Your task to perform on an android device: Go to Maps Image 0: 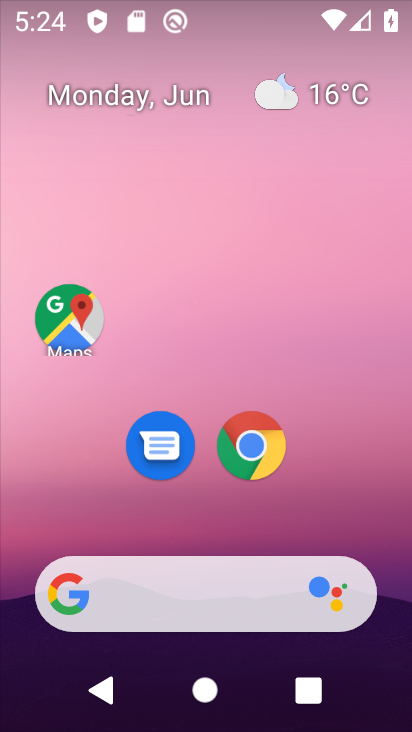
Step 0: click (69, 315)
Your task to perform on an android device: Go to Maps Image 1: 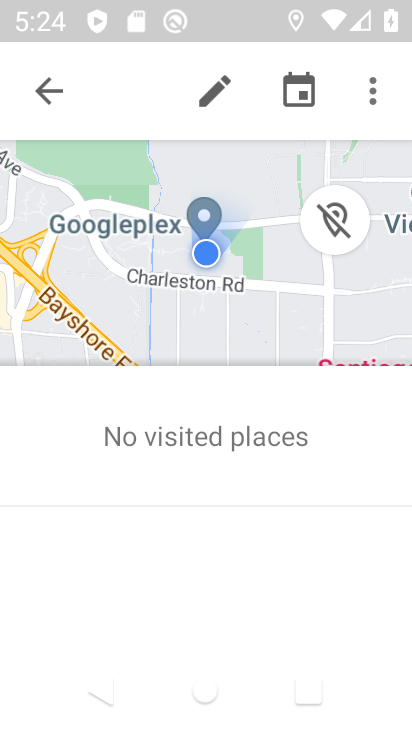
Step 1: task complete